Your task to perform on an android device: change the clock style Image 0: 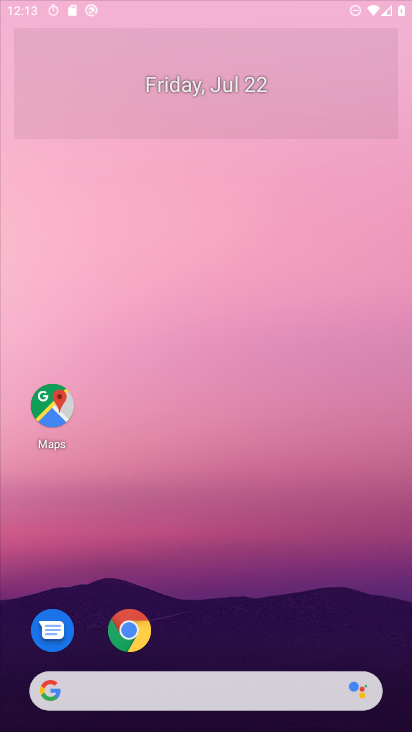
Step 0: press home button
Your task to perform on an android device: change the clock style Image 1: 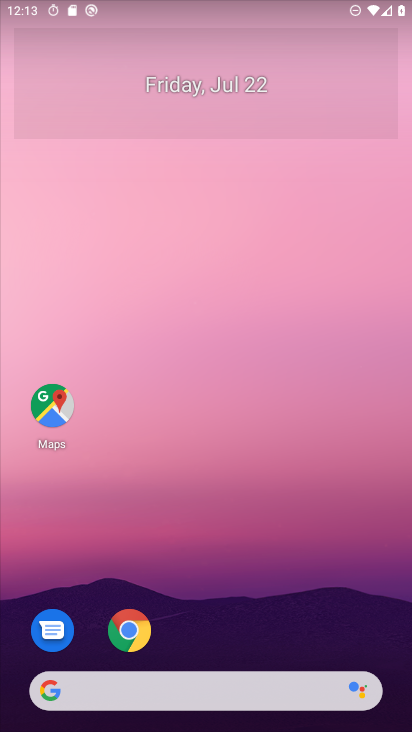
Step 1: drag from (292, 621) to (346, 73)
Your task to perform on an android device: change the clock style Image 2: 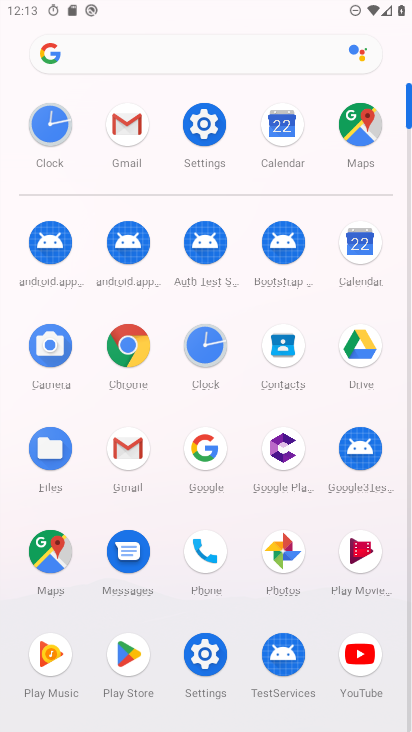
Step 2: click (200, 356)
Your task to perform on an android device: change the clock style Image 3: 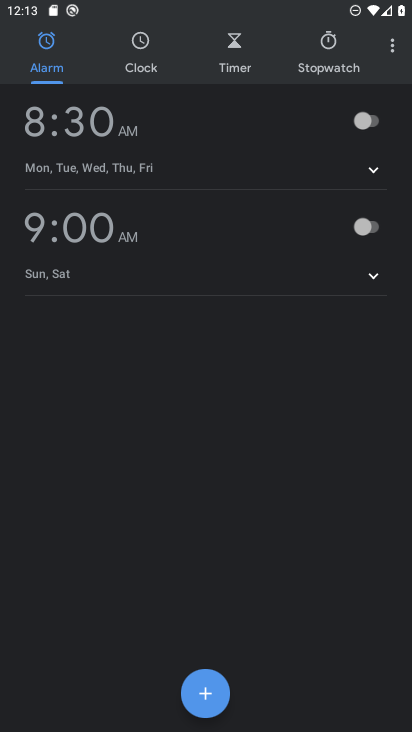
Step 3: click (393, 46)
Your task to perform on an android device: change the clock style Image 4: 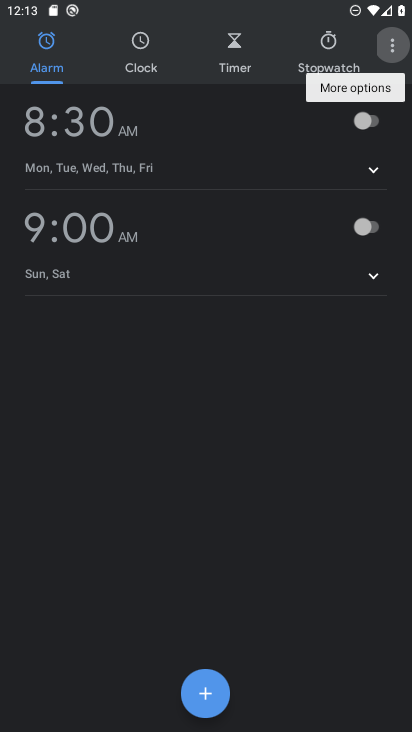
Step 4: click (393, 46)
Your task to perform on an android device: change the clock style Image 5: 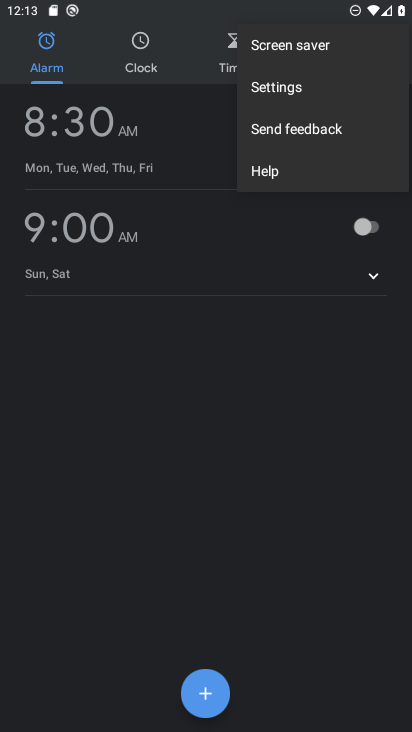
Step 5: click (272, 94)
Your task to perform on an android device: change the clock style Image 6: 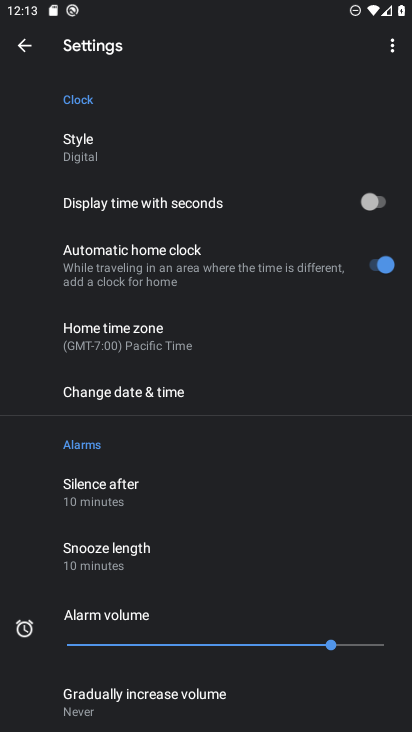
Step 6: click (95, 149)
Your task to perform on an android device: change the clock style Image 7: 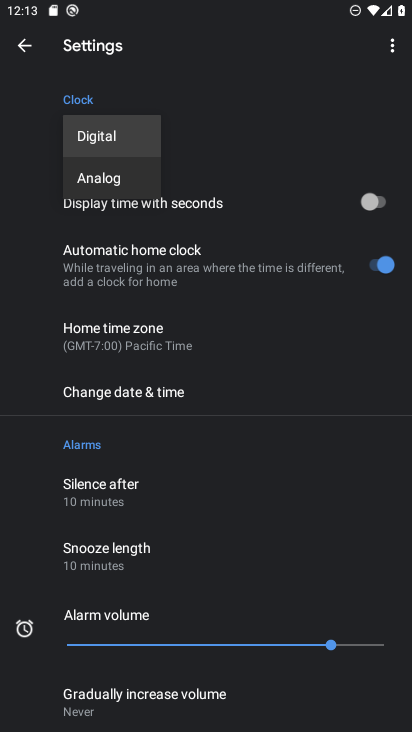
Step 7: click (121, 182)
Your task to perform on an android device: change the clock style Image 8: 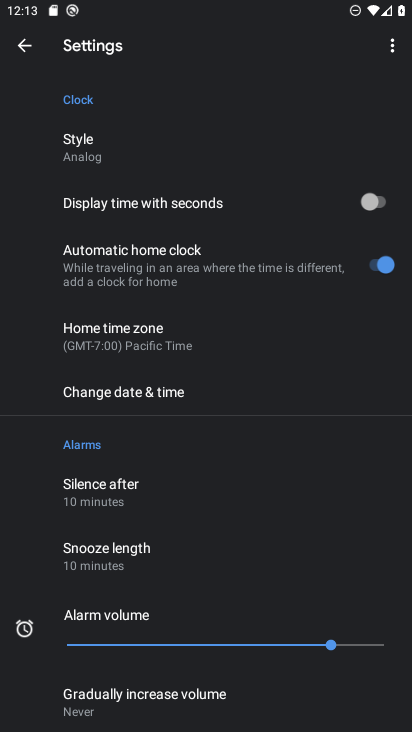
Step 8: task complete